Your task to perform on an android device: Go to battery settings Image 0: 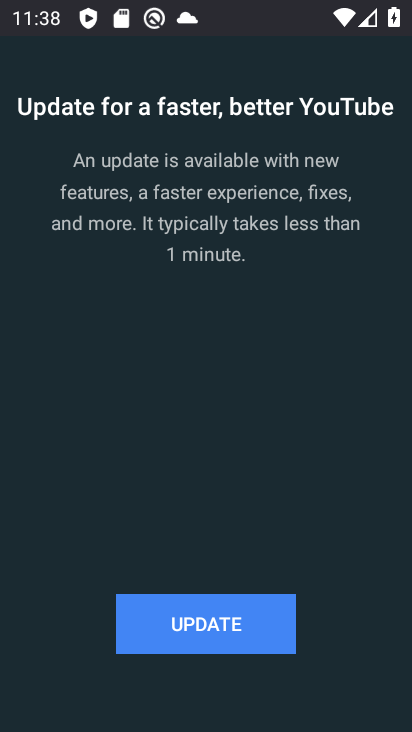
Step 0: press back button
Your task to perform on an android device: Go to battery settings Image 1: 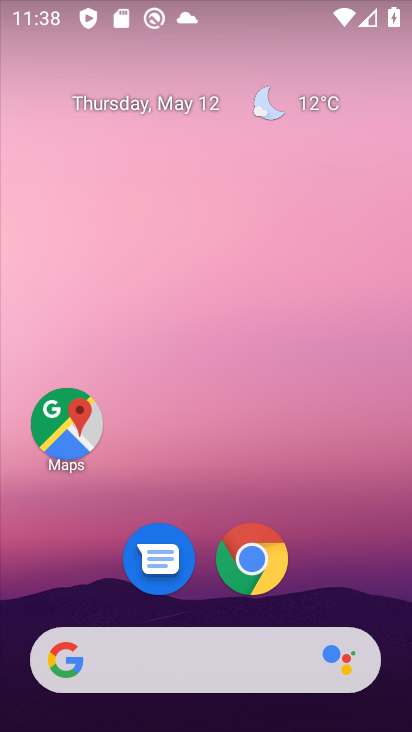
Step 1: drag from (80, 613) to (221, 133)
Your task to perform on an android device: Go to battery settings Image 2: 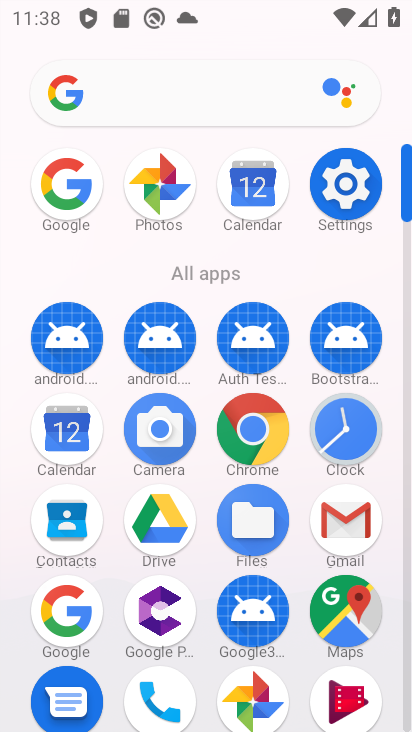
Step 2: drag from (170, 645) to (240, 403)
Your task to perform on an android device: Go to battery settings Image 3: 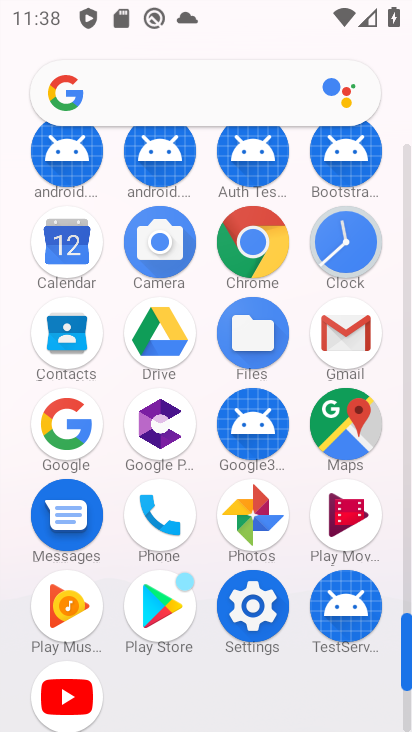
Step 3: click (257, 614)
Your task to perform on an android device: Go to battery settings Image 4: 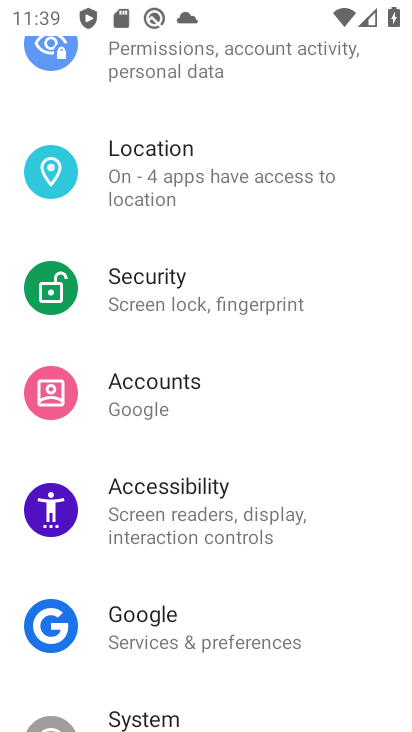
Step 4: drag from (177, 627) to (175, 687)
Your task to perform on an android device: Go to battery settings Image 5: 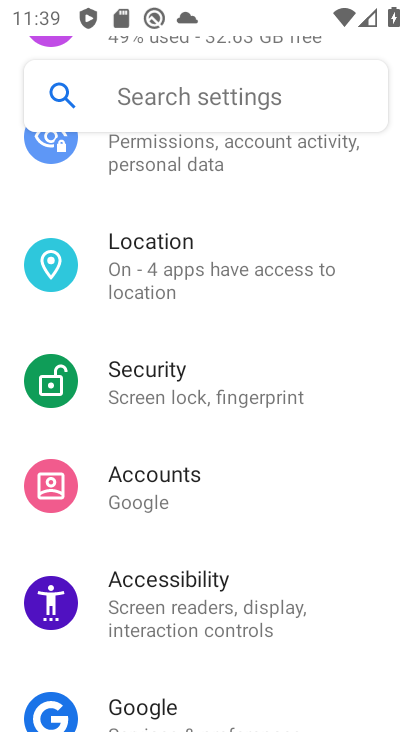
Step 5: drag from (227, 274) to (193, 701)
Your task to perform on an android device: Go to battery settings Image 6: 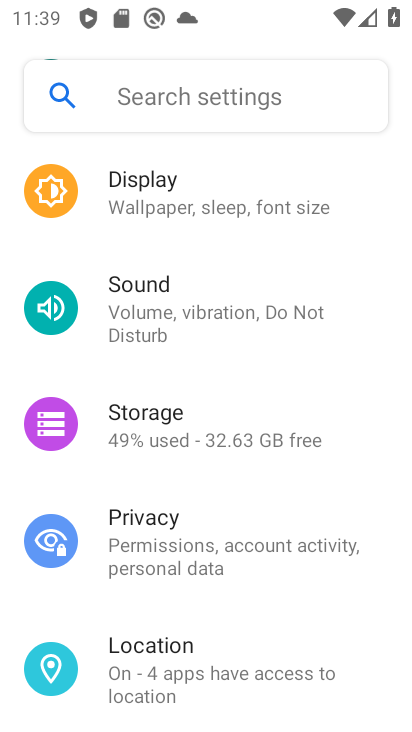
Step 6: drag from (261, 218) to (224, 532)
Your task to perform on an android device: Go to battery settings Image 7: 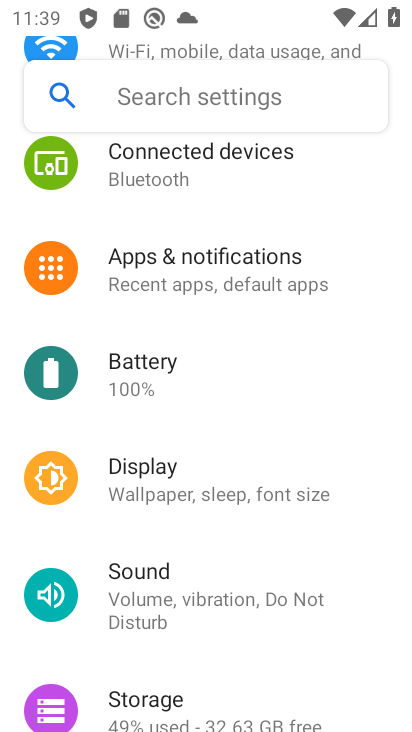
Step 7: click (186, 366)
Your task to perform on an android device: Go to battery settings Image 8: 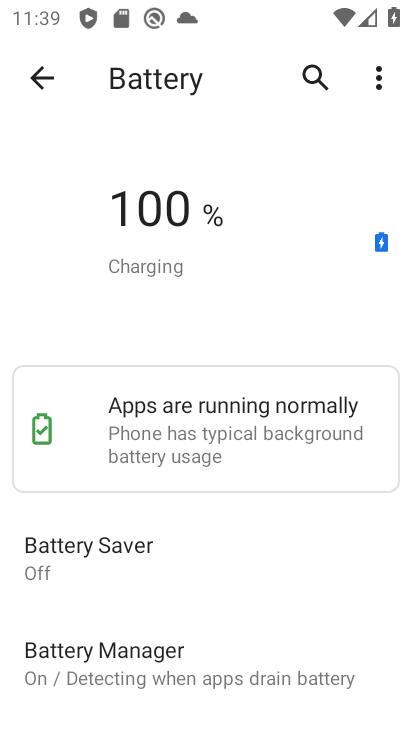
Step 8: task complete